Your task to perform on an android device: change the clock style Image 0: 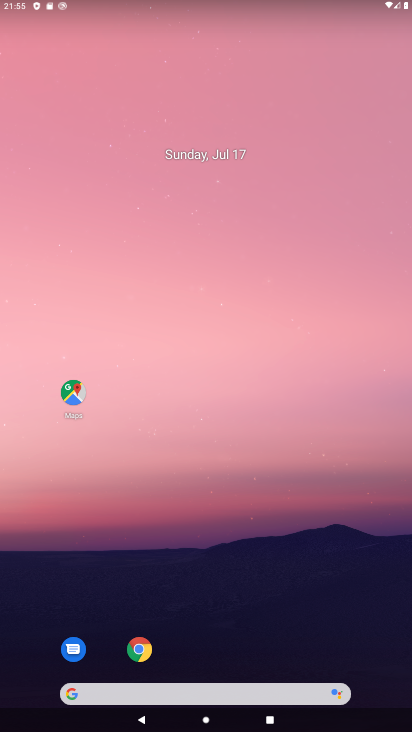
Step 0: drag from (55, 634) to (144, 212)
Your task to perform on an android device: change the clock style Image 1: 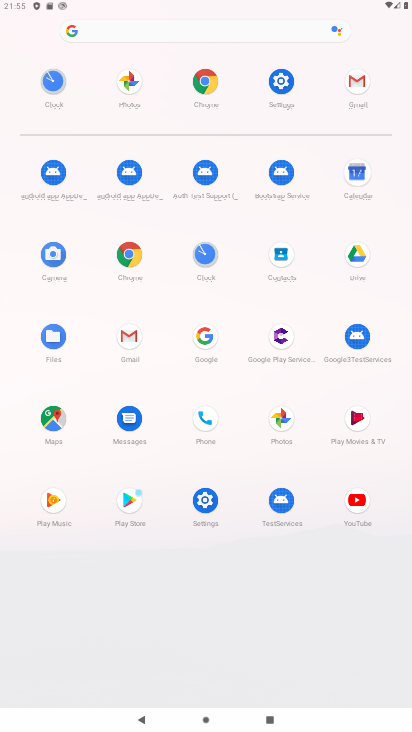
Step 1: click (209, 265)
Your task to perform on an android device: change the clock style Image 2: 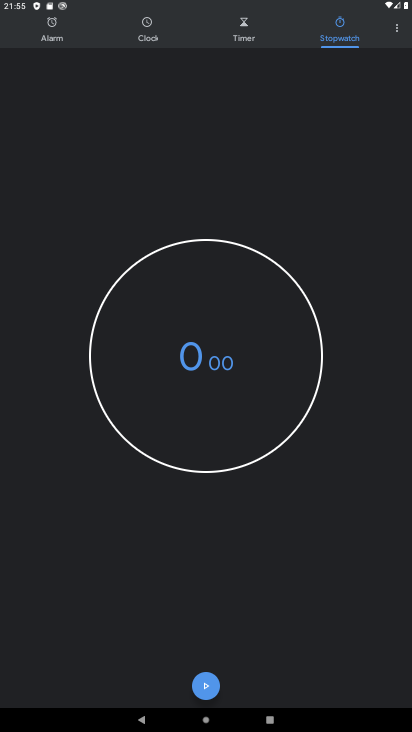
Step 2: click (394, 30)
Your task to perform on an android device: change the clock style Image 3: 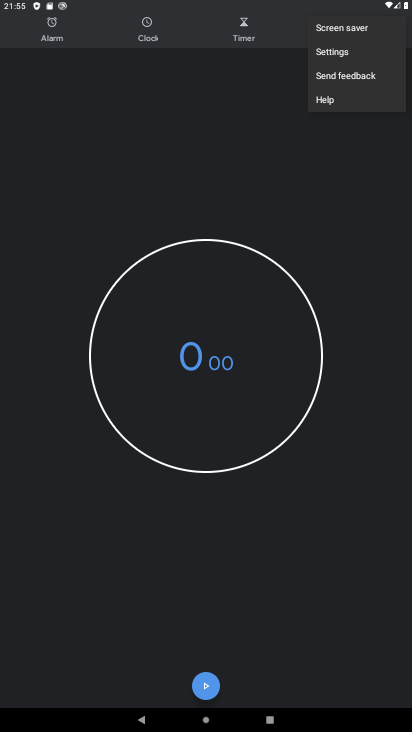
Step 3: click (347, 54)
Your task to perform on an android device: change the clock style Image 4: 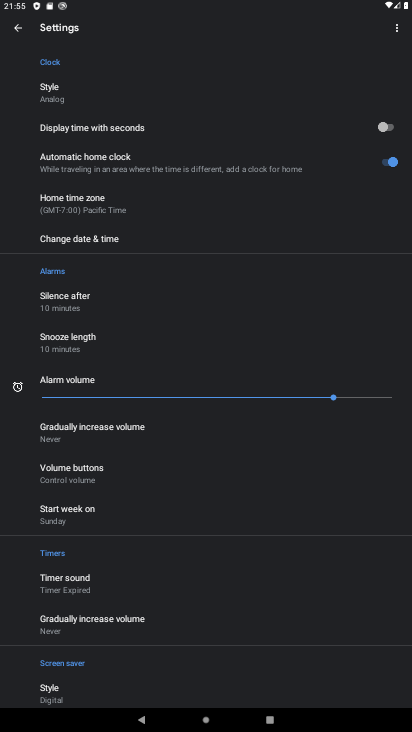
Step 4: click (76, 97)
Your task to perform on an android device: change the clock style Image 5: 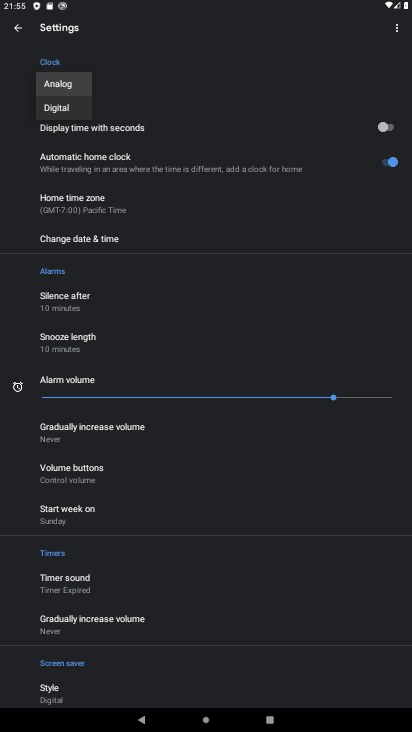
Step 5: click (61, 104)
Your task to perform on an android device: change the clock style Image 6: 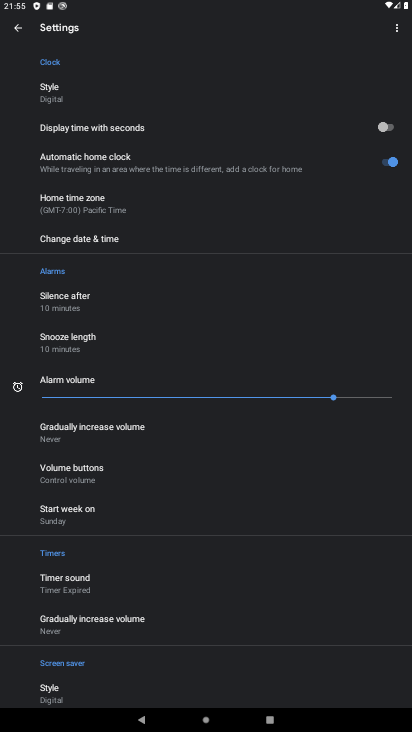
Step 6: task complete